Your task to perform on an android device: make emails show in primary in the gmail app Image 0: 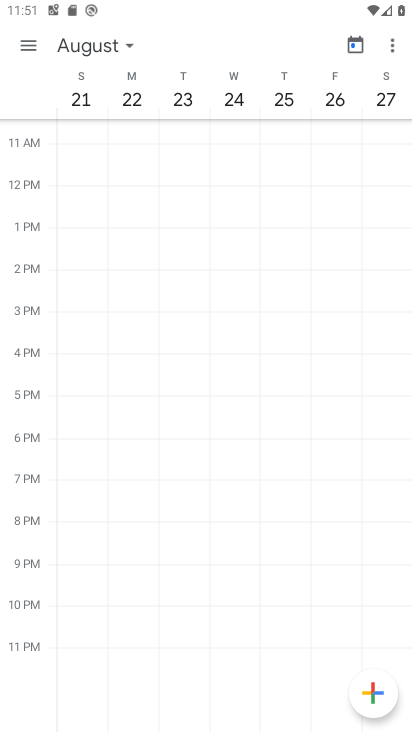
Step 0: press home button
Your task to perform on an android device: make emails show in primary in the gmail app Image 1: 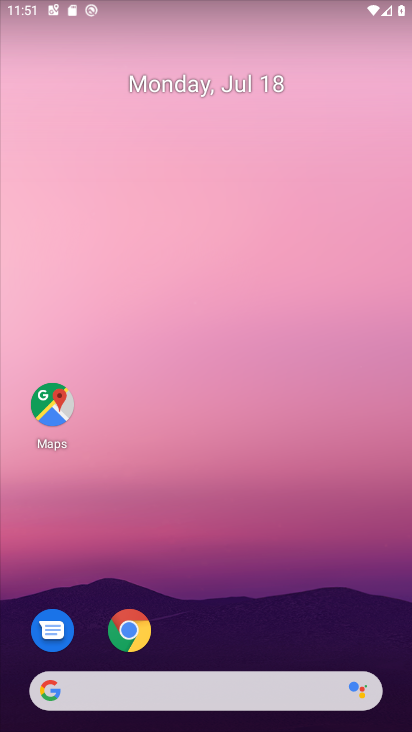
Step 1: drag from (196, 593) to (182, 5)
Your task to perform on an android device: make emails show in primary in the gmail app Image 2: 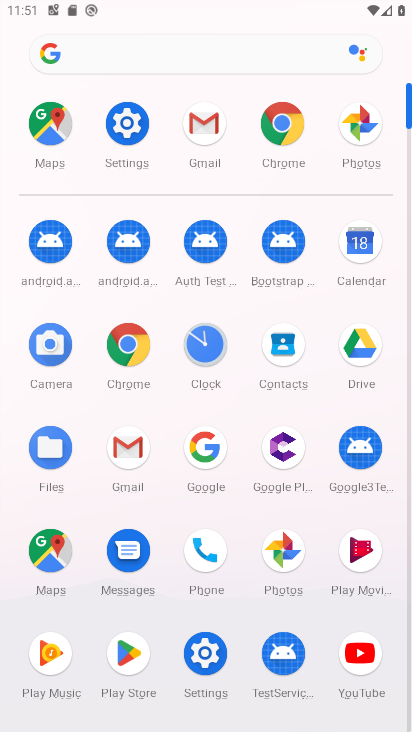
Step 2: click (119, 441)
Your task to perform on an android device: make emails show in primary in the gmail app Image 3: 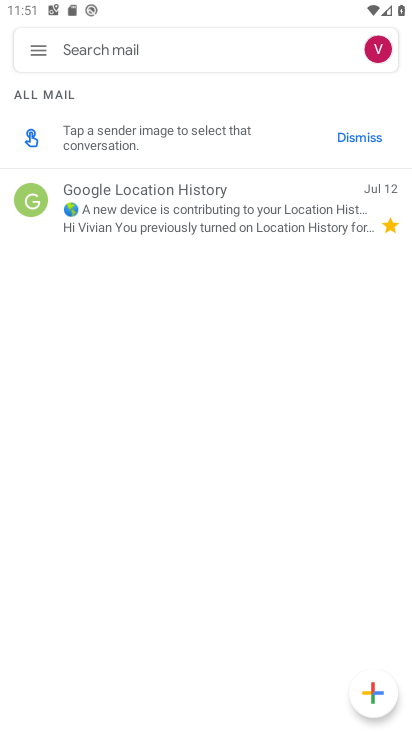
Step 3: click (36, 51)
Your task to perform on an android device: make emails show in primary in the gmail app Image 4: 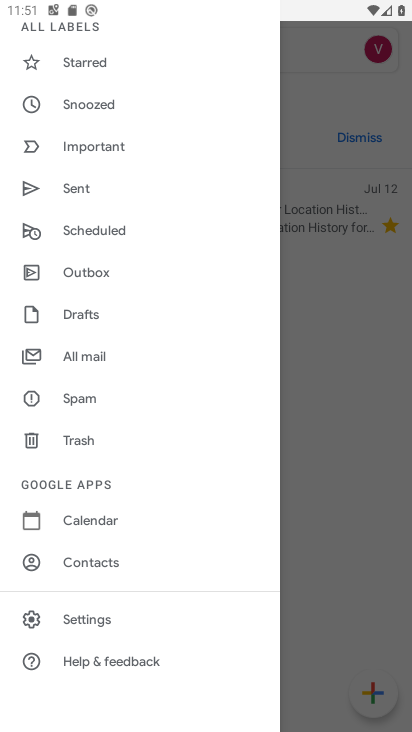
Step 4: click (70, 618)
Your task to perform on an android device: make emails show in primary in the gmail app Image 5: 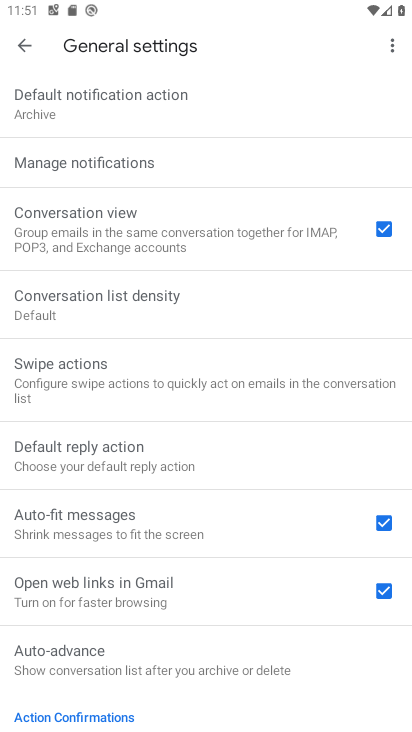
Step 5: click (17, 42)
Your task to perform on an android device: make emails show in primary in the gmail app Image 6: 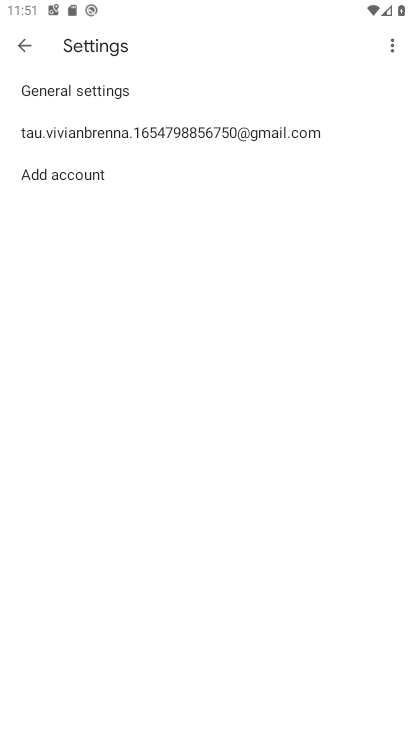
Step 6: click (148, 135)
Your task to perform on an android device: make emails show in primary in the gmail app Image 7: 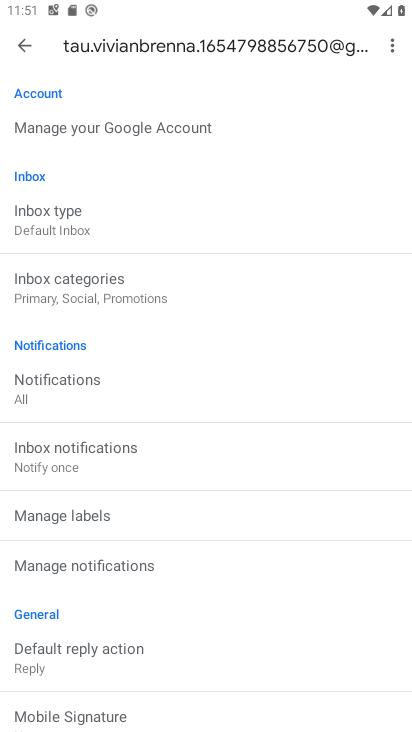
Step 7: click (66, 294)
Your task to perform on an android device: make emails show in primary in the gmail app Image 8: 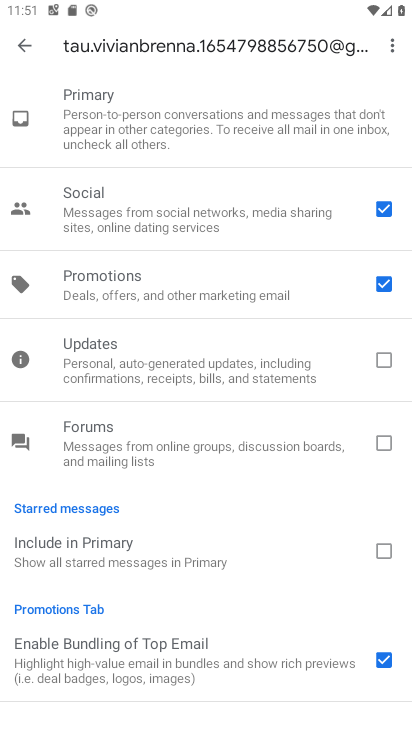
Step 8: click (367, 268)
Your task to perform on an android device: make emails show in primary in the gmail app Image 9: 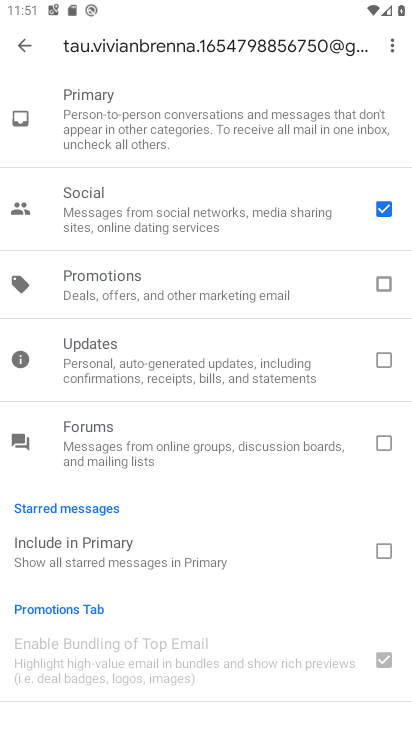
Step 9: click (358, 201)
Your task to perform on an android device: make emails show in primary in the gmail app Image 10: 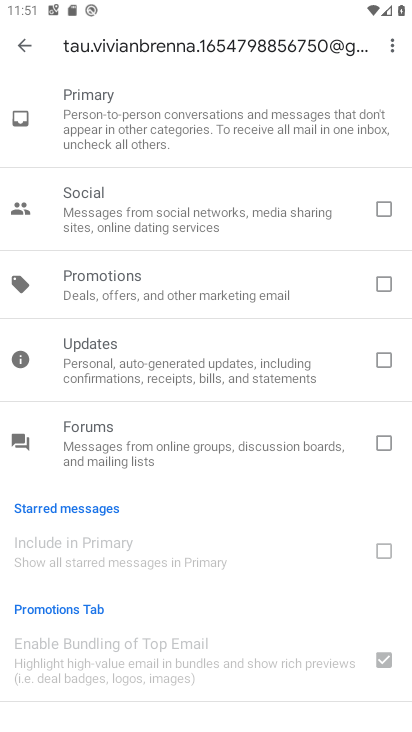
Step 10: task complete